Your task to perform on an android device: Open Google Chrome Image 0: 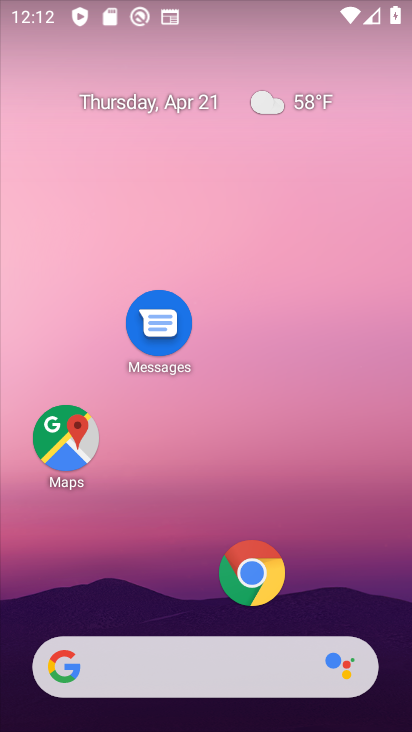
Step 0: click (253, 574)
Your task to perform on an android device: Open Google Chrome Image 1: 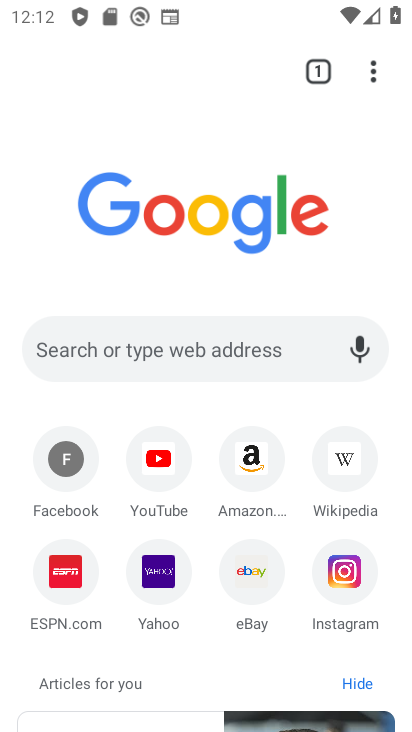
Step 1: task complete